Your task to perform on an android device: delete a single message in the gmail app Image 0: 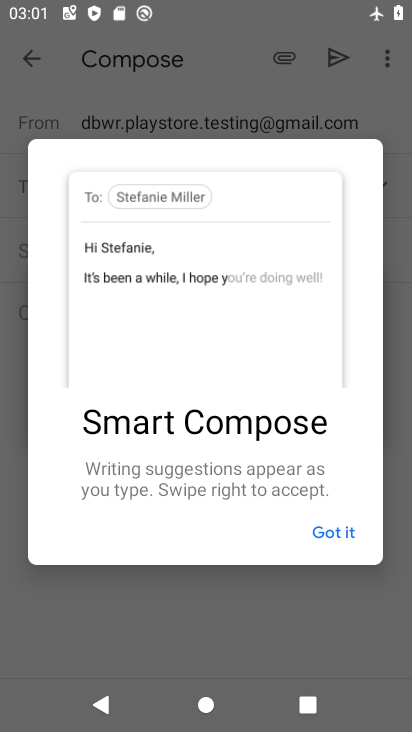
Step 0: press back button
Your task to perform on an android device: delete a single message in the gmail app Image 1: 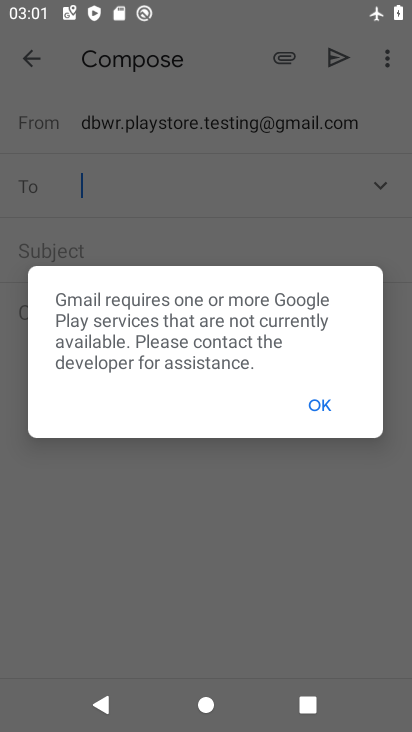
Step 1: press back button
Your task to perform on an android device: delete a single message in the gmail app Image 2: 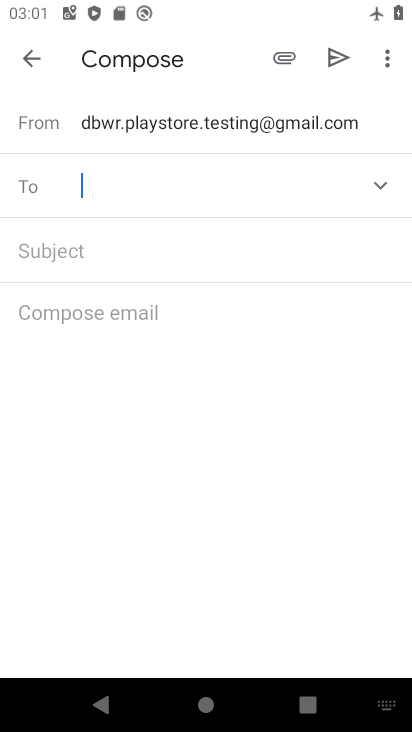
Step 2: press back button
Your task to perform on an android device: delete a single message in the gmail app Image 3: 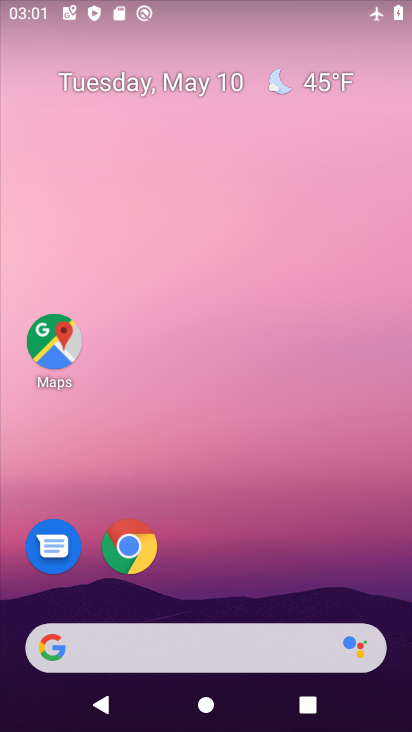
Step 3: drag from (221, 364) to (193, 67)
Your task to perform on an android device: delete a single message in the gmail app Image 4: 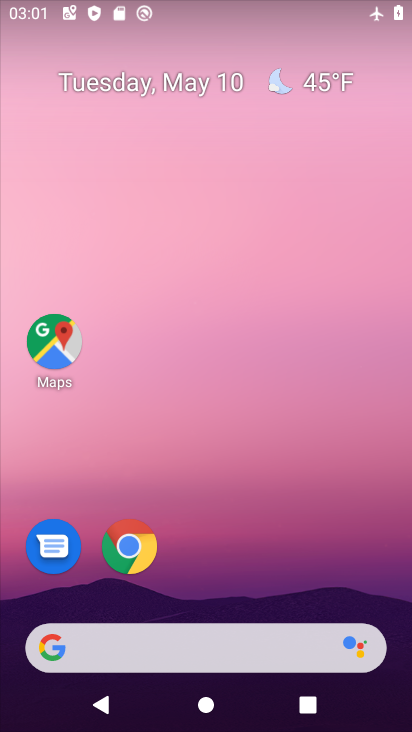
Step 4: drag from (291, 539) to (189, 14)
Your task to perform on an android device: delete a single message in the gmail app Image 5: 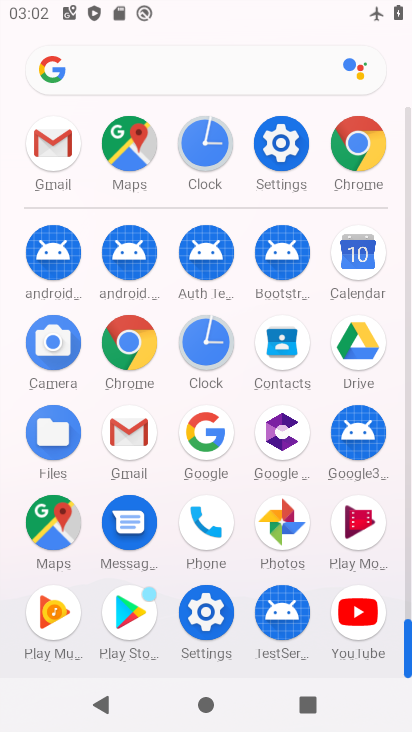
Step 5: click (47, 139)
Your task to perform on an android device: delete a single message in the gmail app Image 6: 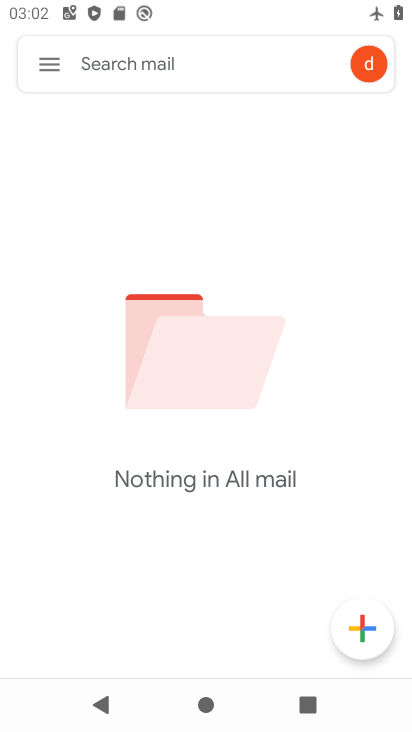
Step 6: click (51, 63)
Your task to perform on an android device: delete a single message in the gmail app Image 7: 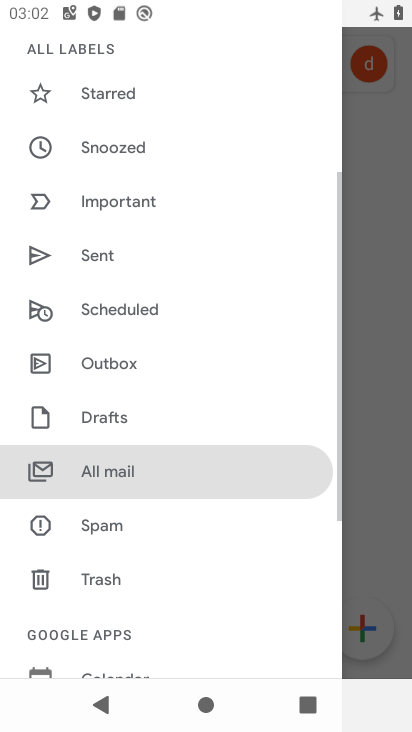
Step 7: drag from (231, 557) to (221, 156)
Your task to perform on an android device: delete a single message in the gmail app Image 8: 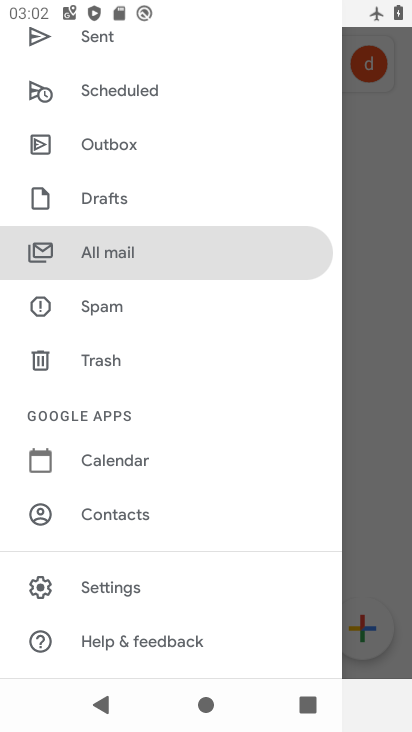
Step 8: click (131, 583)
Your task to perform on an android device: delete a single message in the gmail app Image 9: 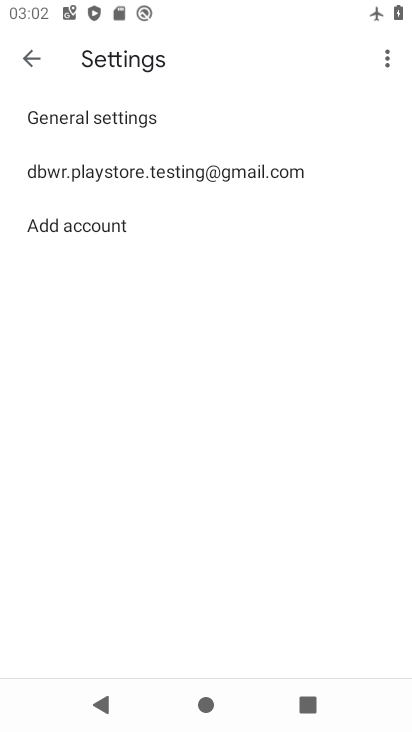
Step 9: click (28, 55)
Your task to perform on an android device: delete a single message in the gmail app Image 10: 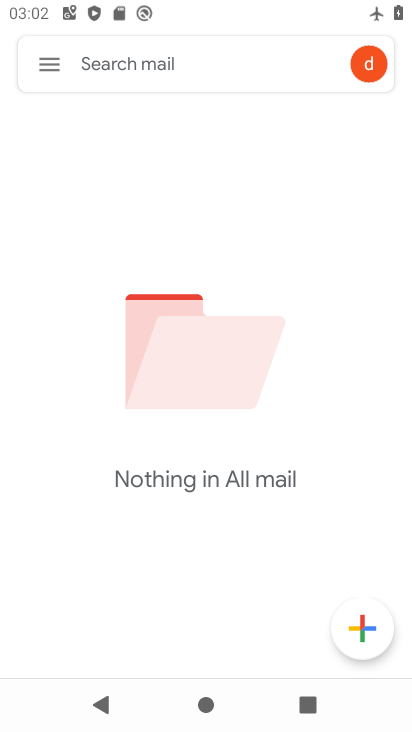
Step 10: click (47, 64)
Your task to perform on an android device: delete a single message in the gmail app Image 11: 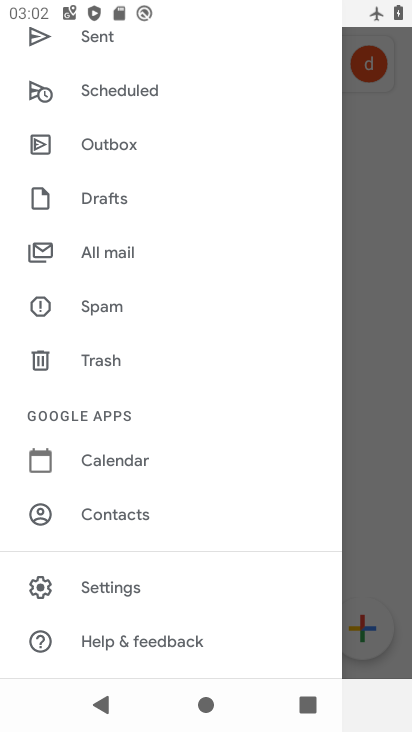
Step 11: click (144, 251)
Your task to perform on an android device: delete a single message in the gmail app Image 12: 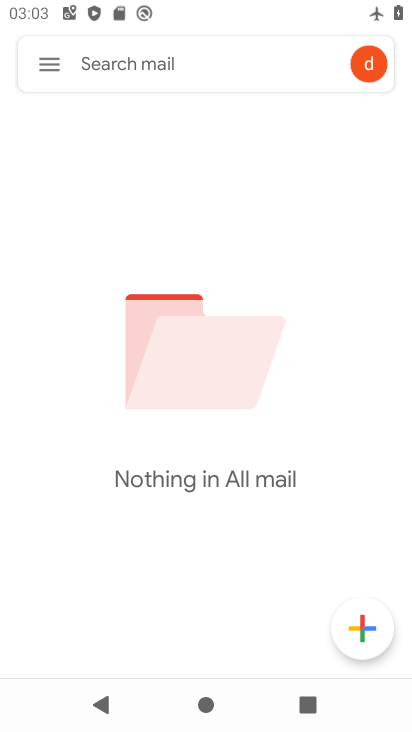
Step 12: click (45, 68)
Your task to perform on an android device: delete a single message in the gmail app Image 13: 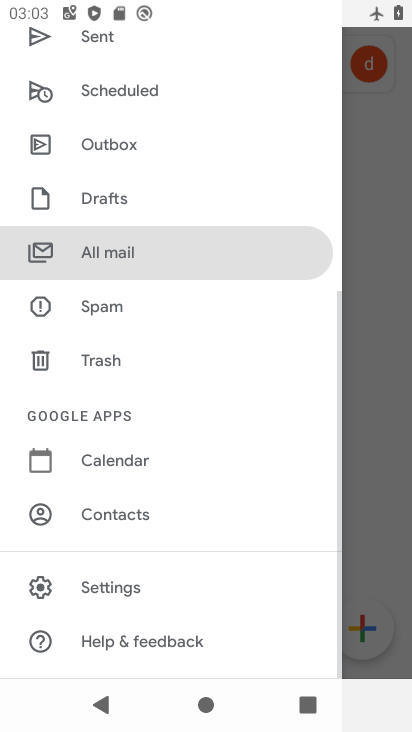
Step 13: drag from (194, 120) to (223, 503)
Your task to perform on an android device: delete a single message in the gmail app Image 14: 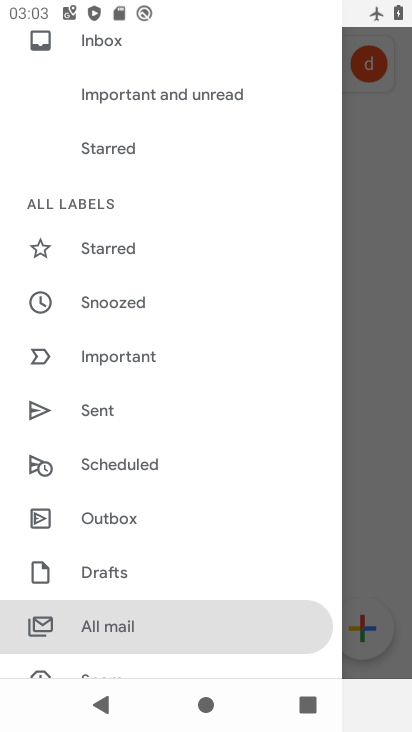
Step 14: drag from (192, 115) to (205, 495)
Your task to perform on an android device: delete a single message in the gmail app Image 15: 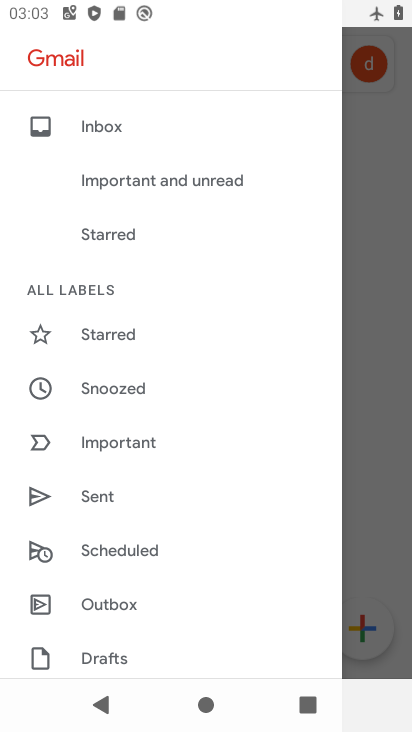
Step 15: click (121, 121)
Your task to perform on an android device: delete a single message in the gmail app Image 16: 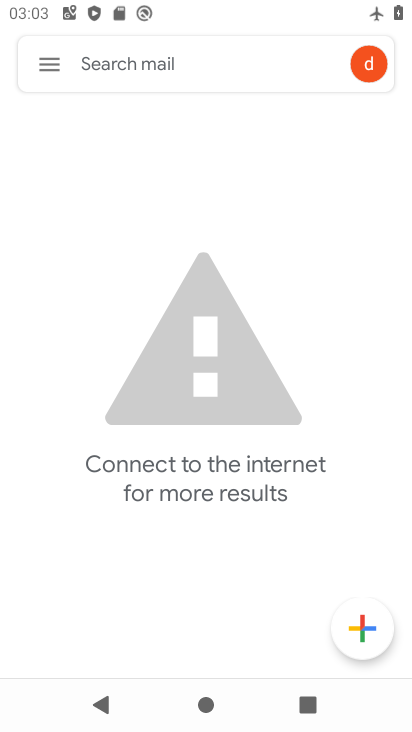
Step 16: task complete